Your task to perform on an android device: turn off javascript in the chrome app Image 0: 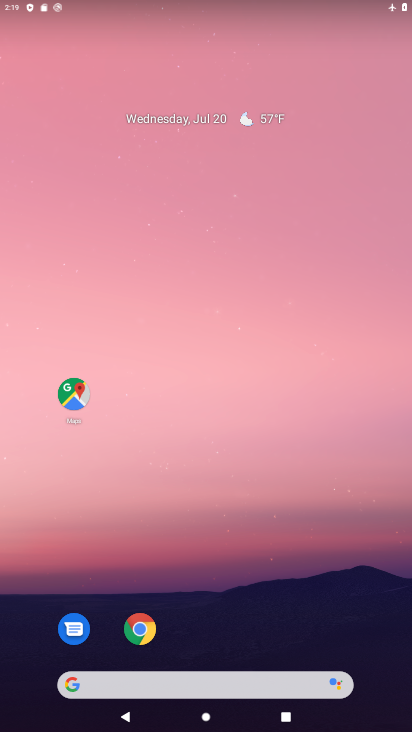
Step 0: click (144, 623)
Your task to perform on an android device: turn off javascript in the chrome app Image 1: 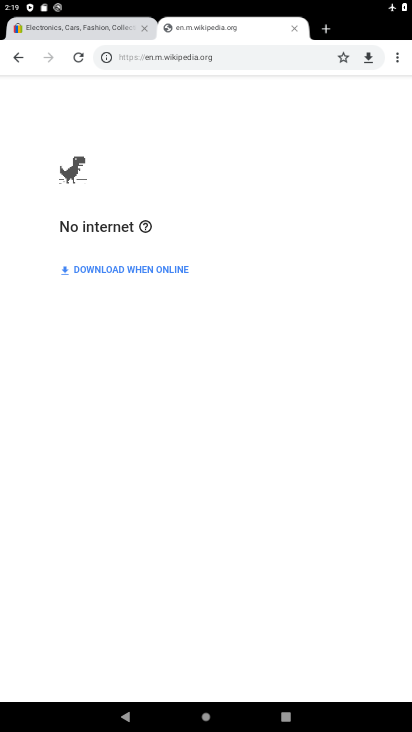
Step 1: click (395, 51)
Your task to perform on an android device: turn off javascript in the chrome app Image 2: 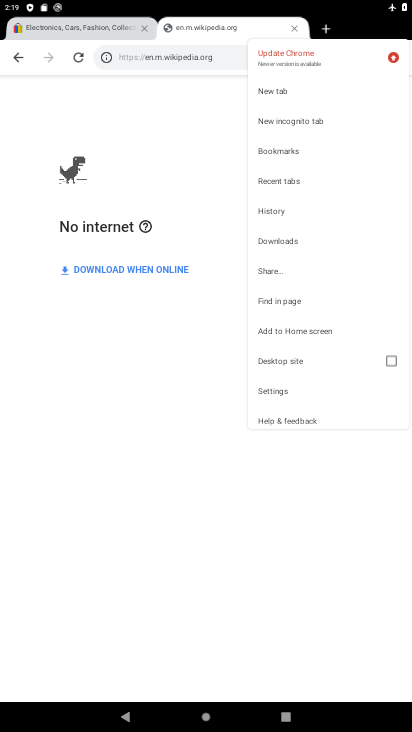
Step 2: click (290, 389)
Your task to perform on an android device: turn off javascript in the chrome app Image 3: 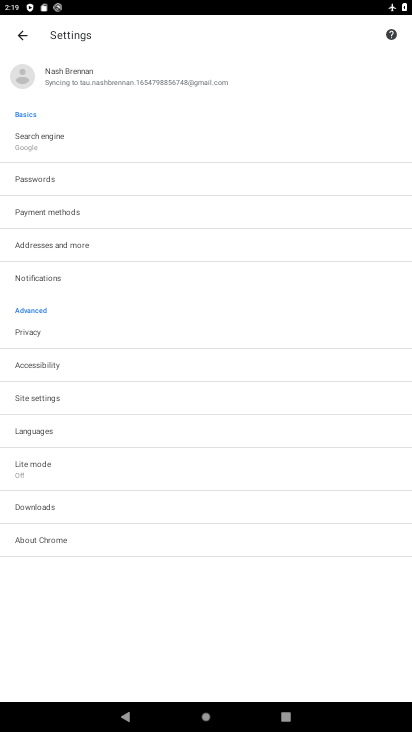
Step 3: click (50, 397)
Your task to perform on an android device: turn off javascript in the chrome app Image 4: 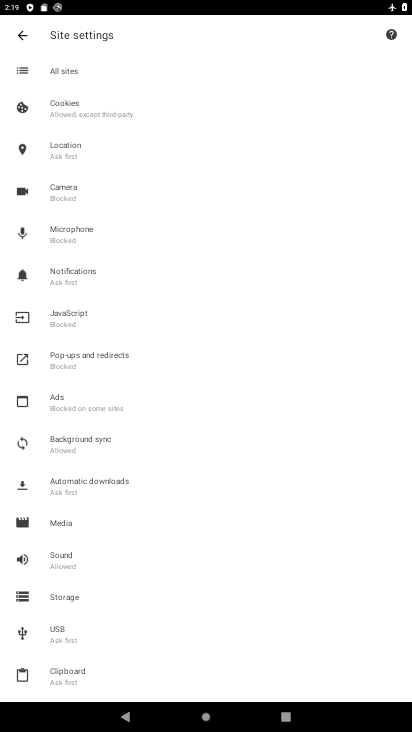
Step 4: click (85, 326)
Your task to perform on an android device: turn off javascript in the chrome app Image 5: 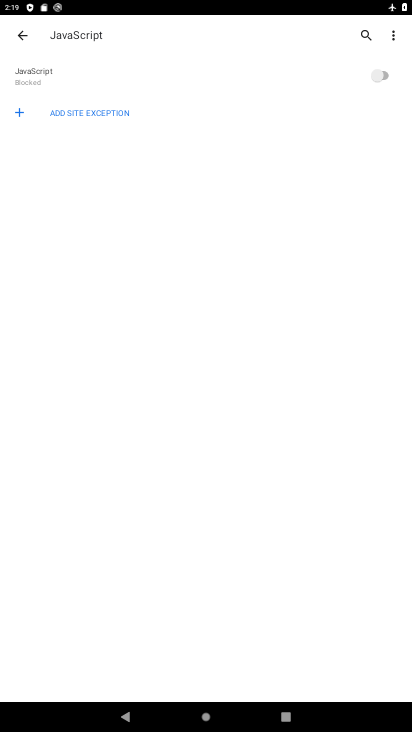
Step 5: task complete